Your task to perform on an android device: open chrome privacy settings Image 0: 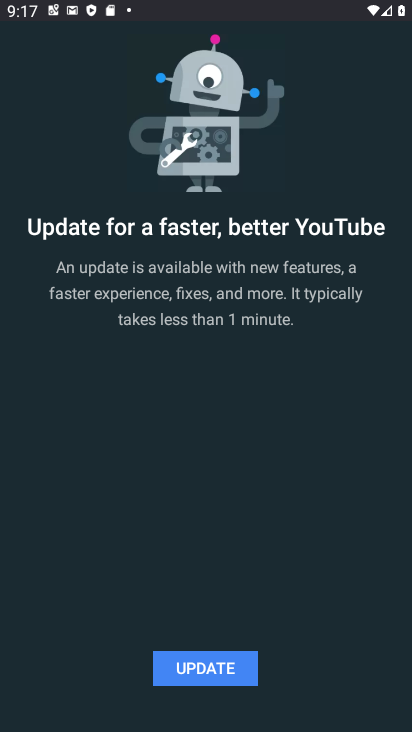
Step 0: press home button
Your task to perform on an android device: open chrome privacy settings Image 1: 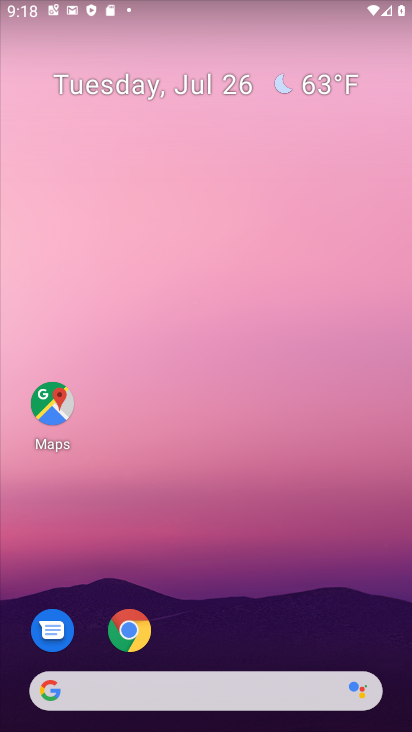
Step 1: click (121, 627)
Your task to perform on an android device: open chrome privacy settings Image 2: 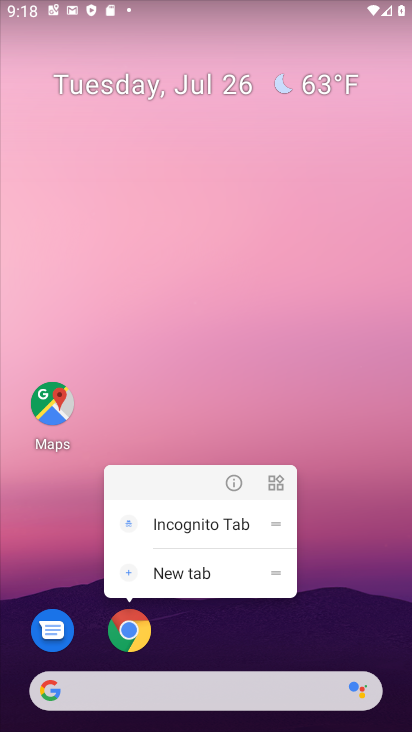
Step 2: click (128, 639)
Your task to perform on an android device: open chrome privacy settings Image 3: 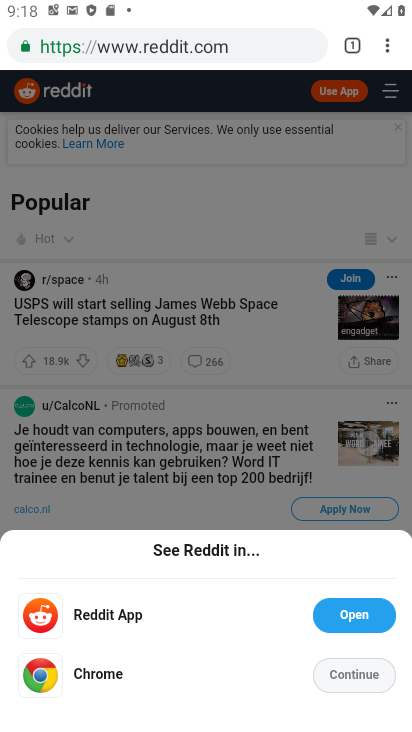
Step 3: click (383, 46)
Your task to perform on an android device: open chrome privacy settings Image 4: 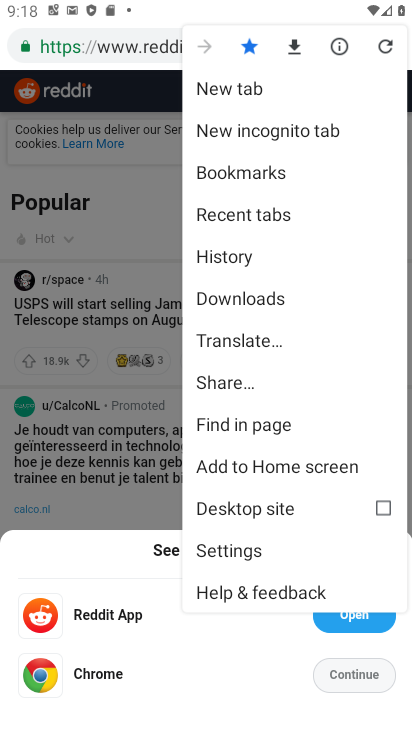
Step 4: click (260, 545)
Your task to perform on an android device: open chrome privacy settings Image 5: 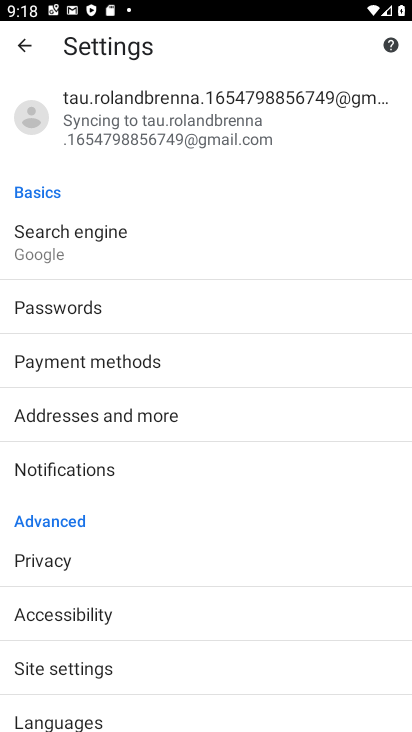
Step 5: click (73, 559)
Your task to perform on an android device: open chrome privacy settings Image 6: 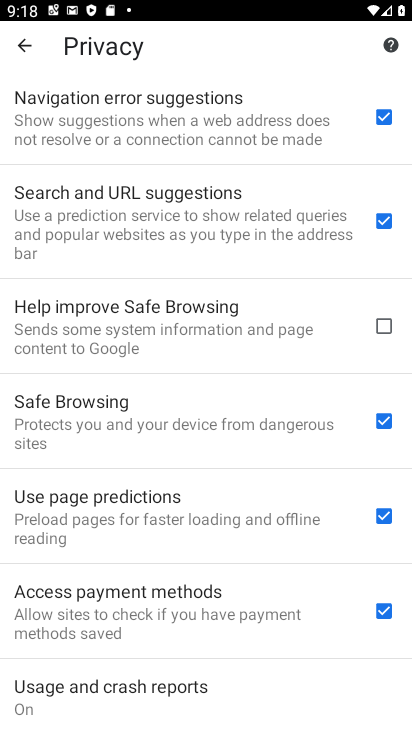
Step 6: task complete